Your task to perform on an android device: turn off airplane mode Image 0: 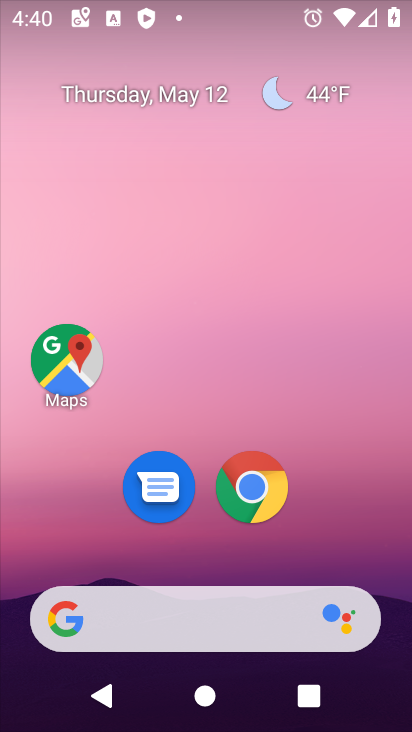
Step 0: drag from (306, 519) to (275, 140)
Your task to perform on an android device: turn off airplane mode Image 1: 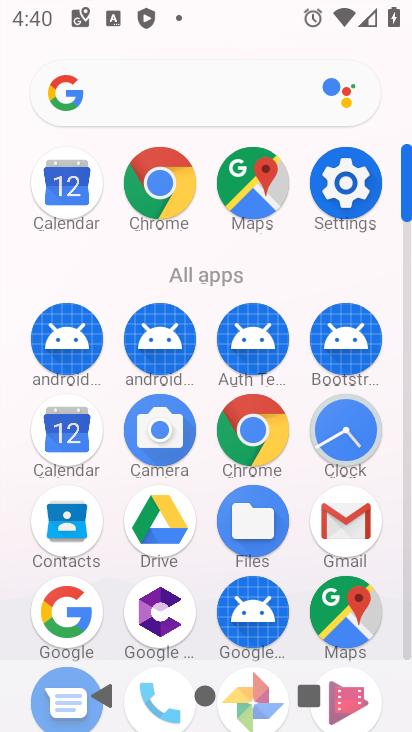
Step 1: click (331, 182)
Your task to perform on an android device: turn off airplane mode Image 2: 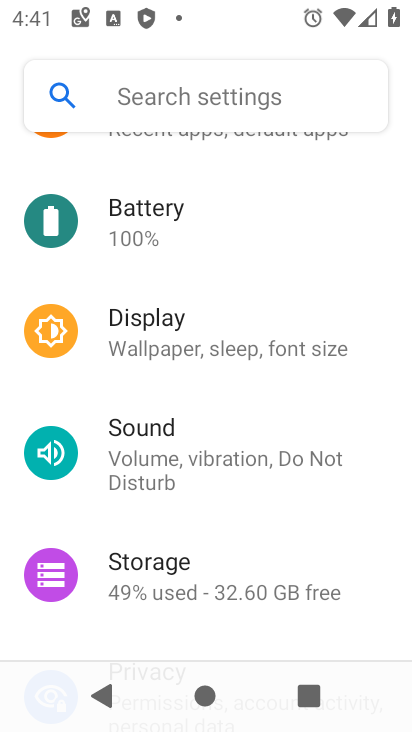
Step 2: drag from (264, 227) to (246, 545)
Your task to perform on an android device: turn off airplane mode Image 3: 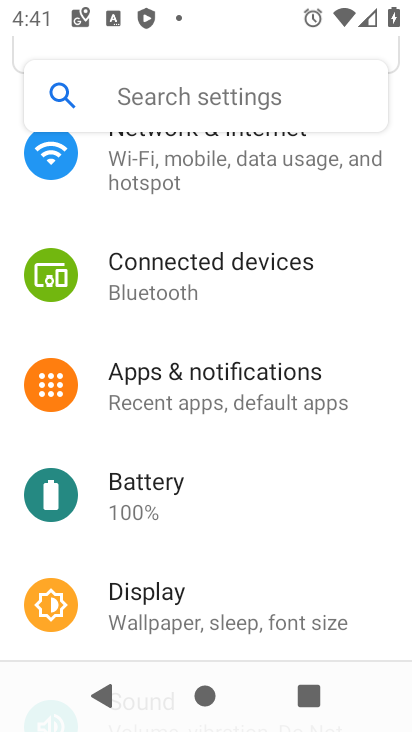
Step 3: click (195, 164)
Your task to perform on an android device: turn off airplane mode Image 4: 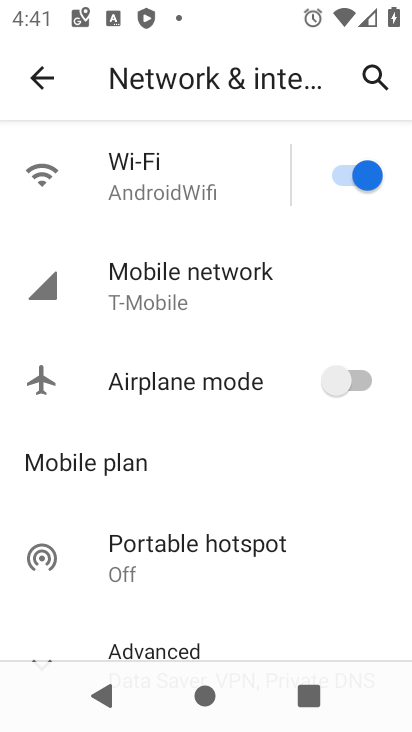
Step 4: task complete